Your task to perform on an android device: Show me popular games on the Play Store Image 0: 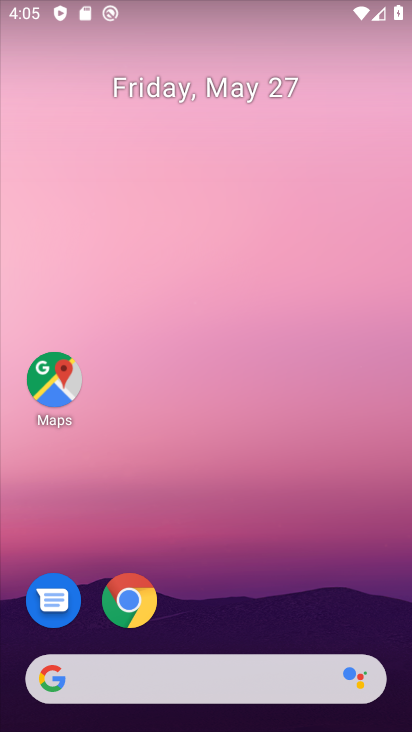
Step 0: drag from (314, 569) to (293, 96)
Your task to perform on an android device: Show me popular games on the Play Store Image 1: 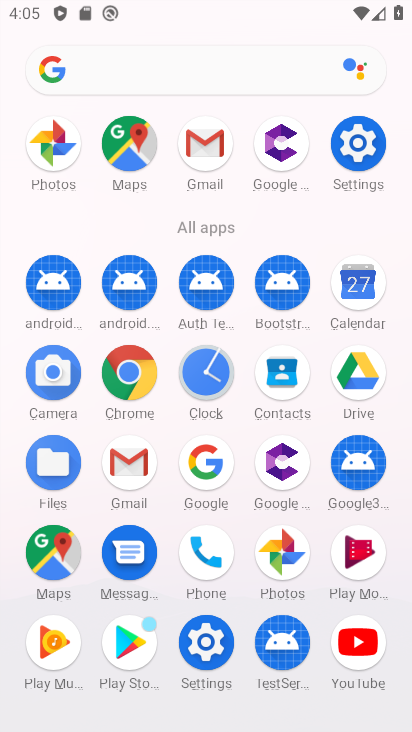
Step 1: click (119, 635)
Your task to perform on an android device: Show me popular games on the Play Store Image 2: 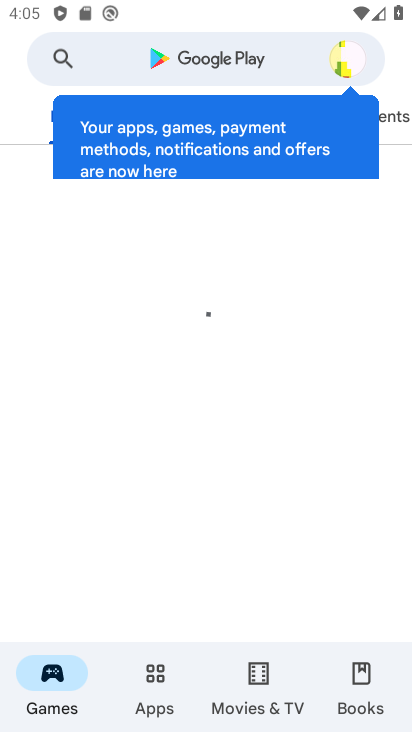
Step 2: click (187, 73)
Your task to perform on an android device: Show me popular games on the Play Store Image 3: 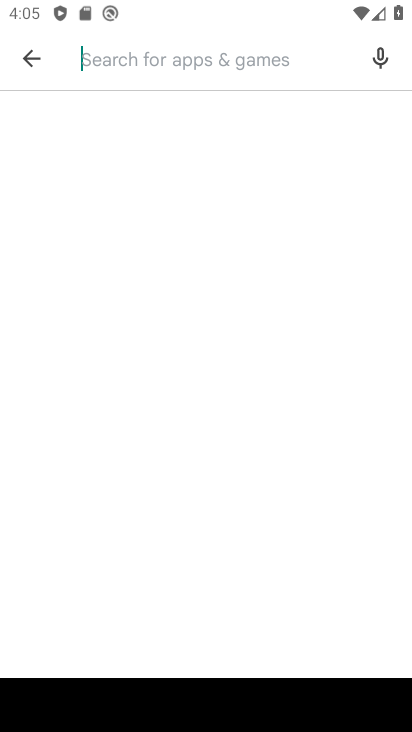
Step 3: type "popular games"
Your task to perform on an android device: Show me popular games on the Play Store Image 4: 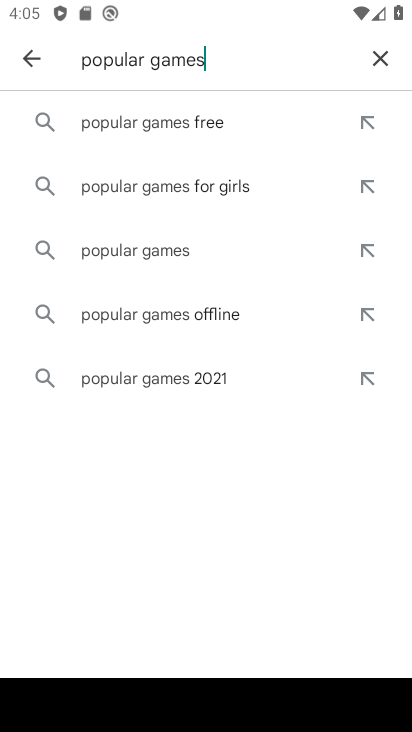
Step 4: click (135, 254)
Your task to perform on an android device: Show me popular games on the Play Store Image 5: 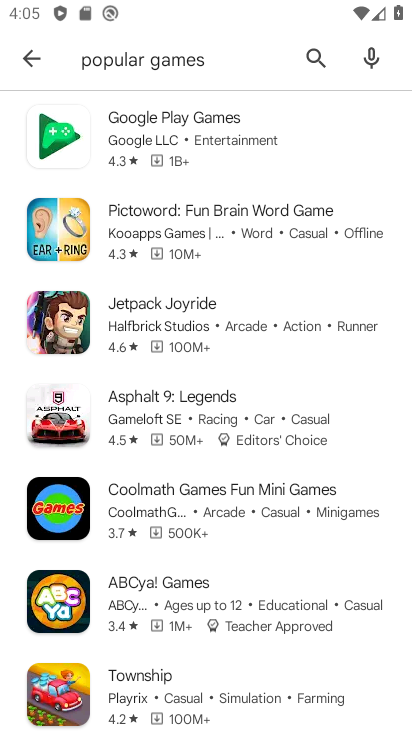
Step 5: task complete